Your task to perform on an android device: What is the recent news? Image 0: 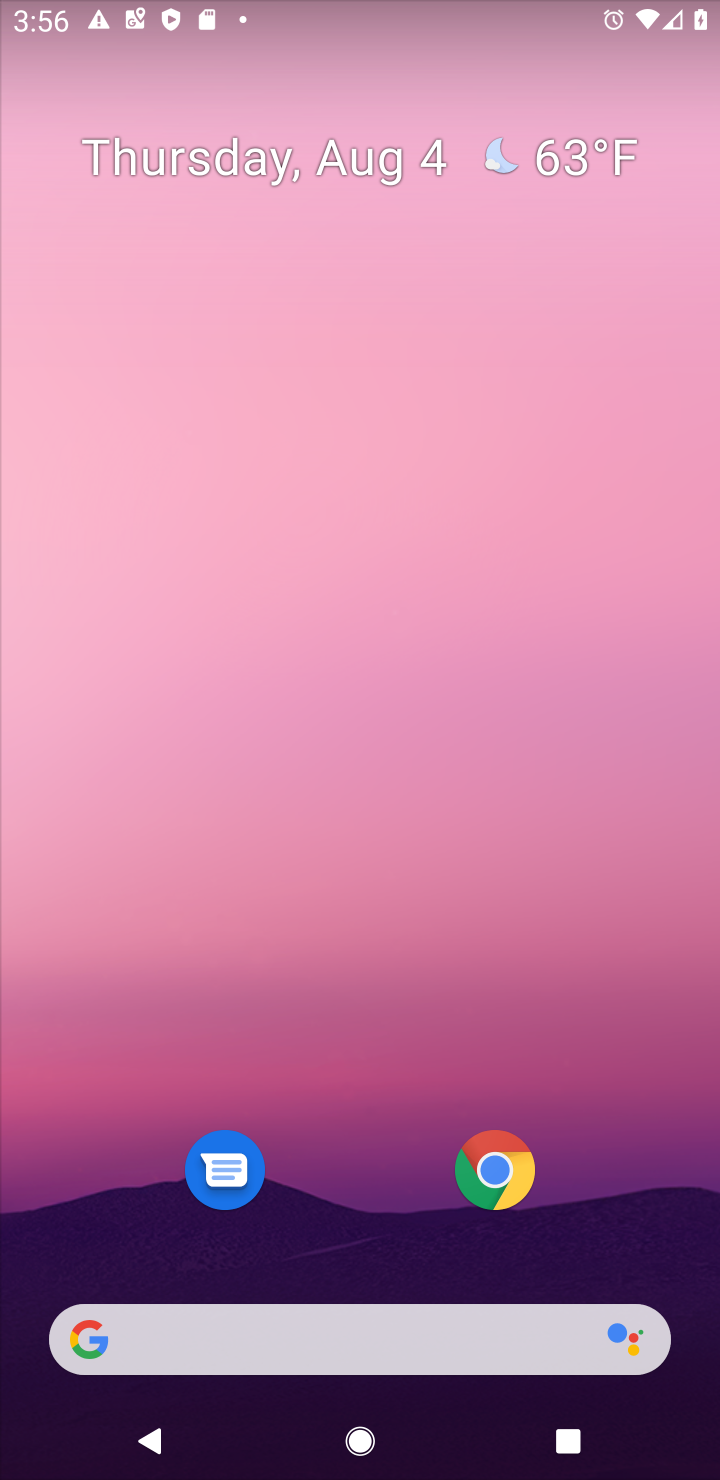
Step 0: drag from (7, 615) to (712, 585)
Your task to perform on an android device: What is the recent news? Image 1: 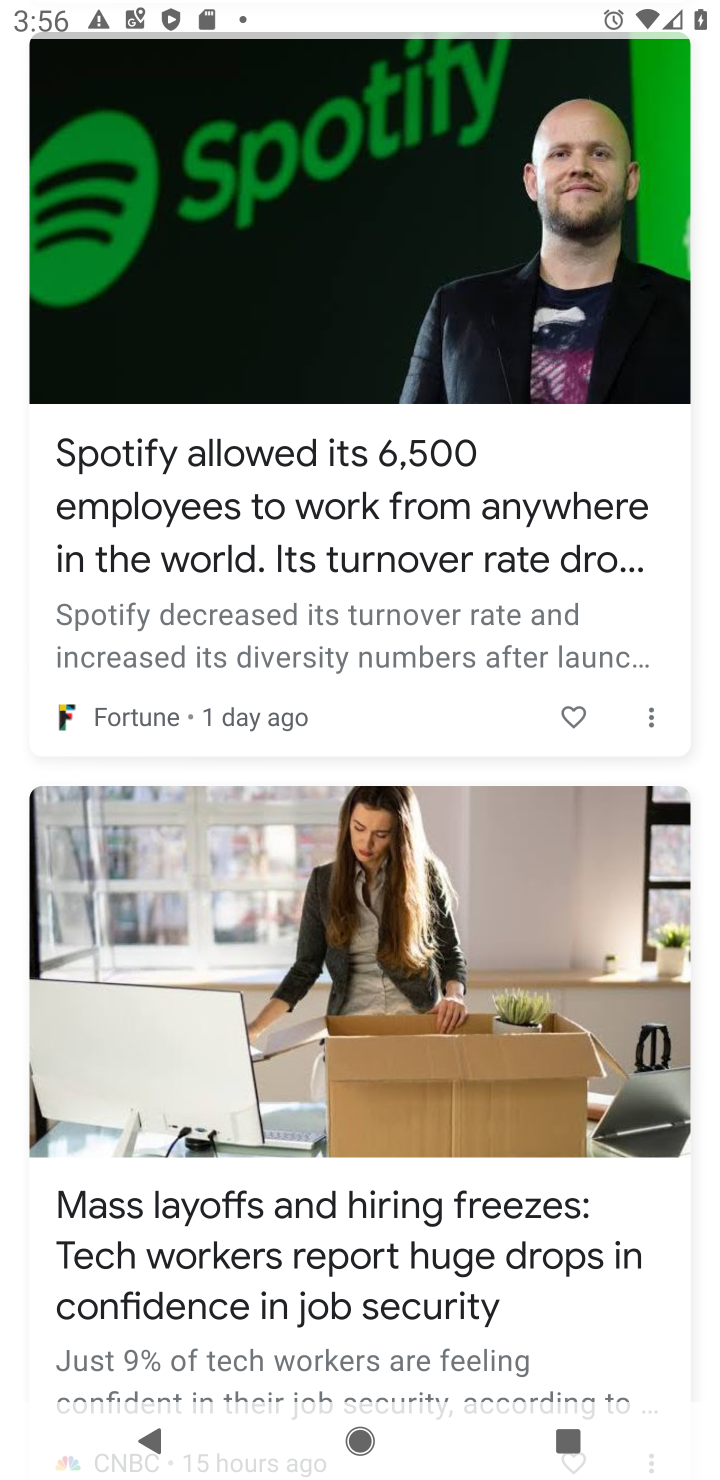
Step 1: task complete